Your task to perform on an android device: Open Google Image 0: 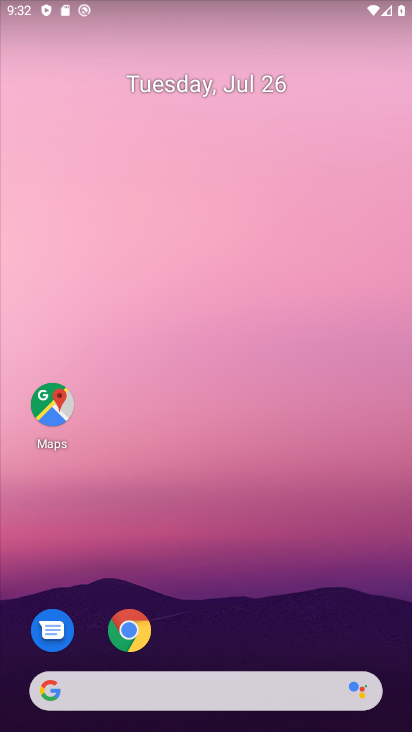
Step 0: click (133, 626)
Your task to perform on an android device: Open Google Image 1: 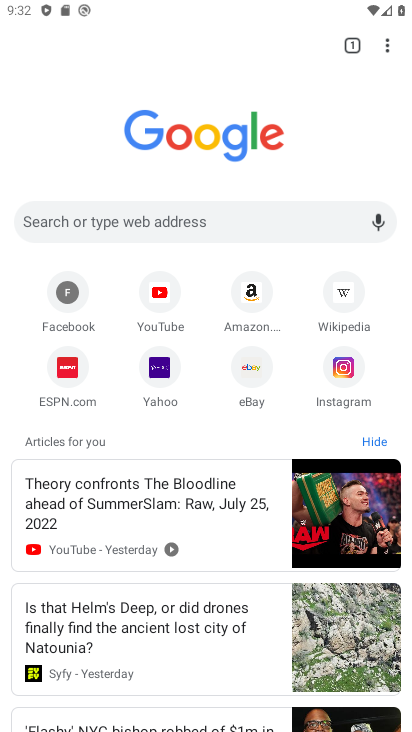
Step 1: task complete